Your task to perform on an android device: turn off wifi Image 0: 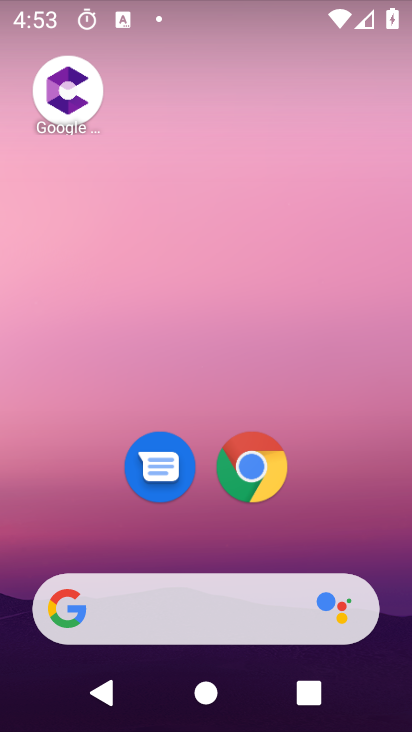
Step 0: drag from (271, 546) to (367, 3)
Your task to perform on an android device: turn off wifi Image 1: 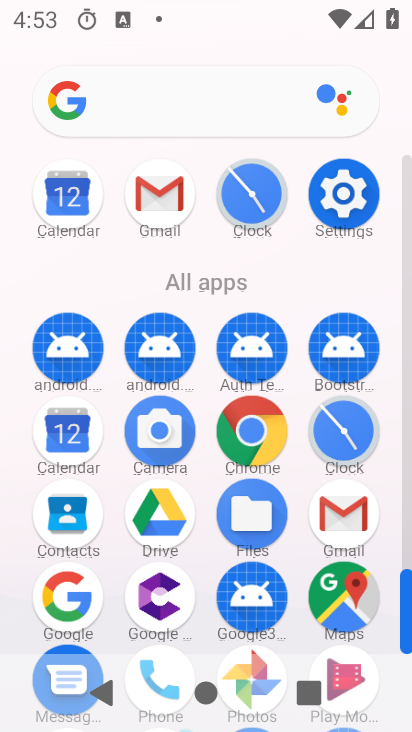
Step 1: click (363, 215)
Your task to perform on an android device: turn off wifi Image 2: 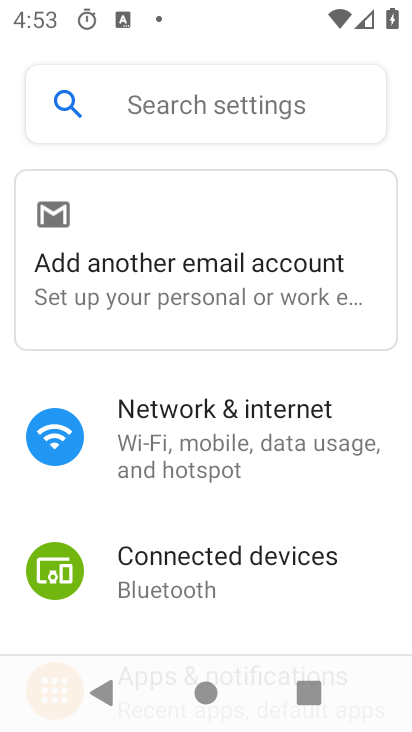
Step 2: click (284, 480)
Your task to perform on an android device: turn off wifi Image 3: 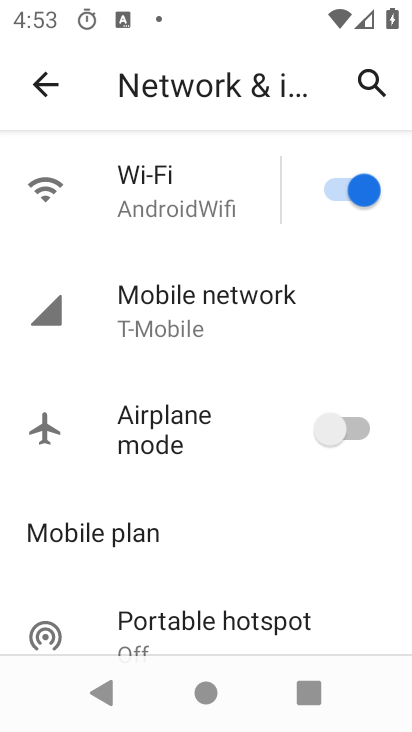
Step 3: click (344, 186)
Your task to perform on an android device: turn off wifi Image 4: 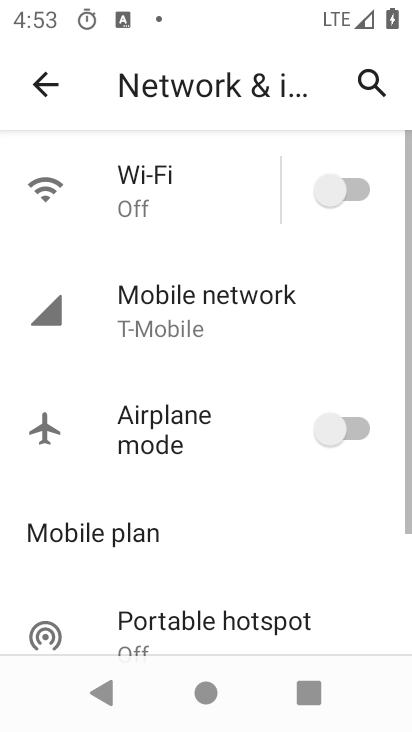
Step 4: task complete